Your task to perform on an android device: Do I have any events this weekend? Image 0: 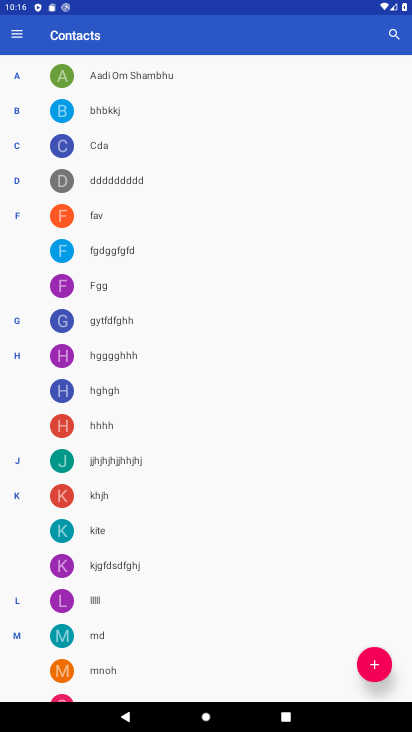
Step 0: press home button
Your task to perform on an android device: Do I have any events this weekend? Image 1: 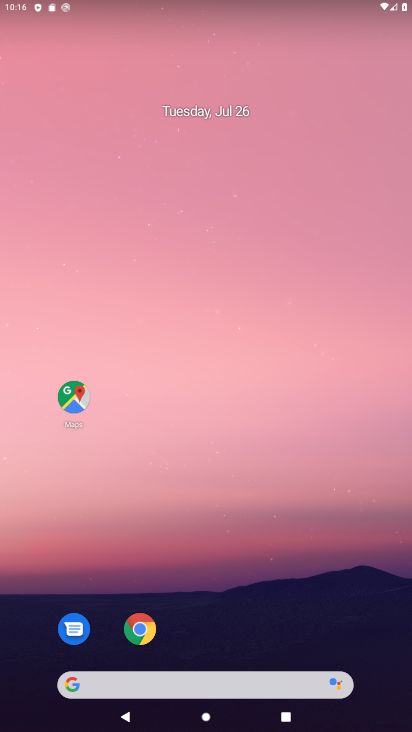
Step 1: drag from (323, 629) to (340, 3)
Your task to perform on an android device: Do I have any events this weekend? Image 2: 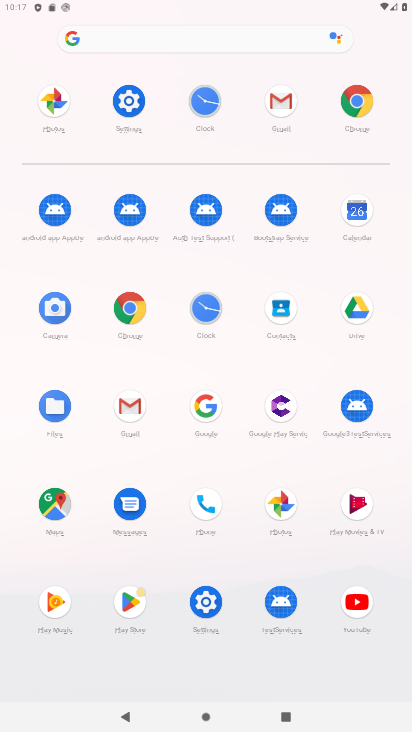
Step 2: click (340, 226)
Your task to perform on an android device: Do I have any events this weekend? Image 3: 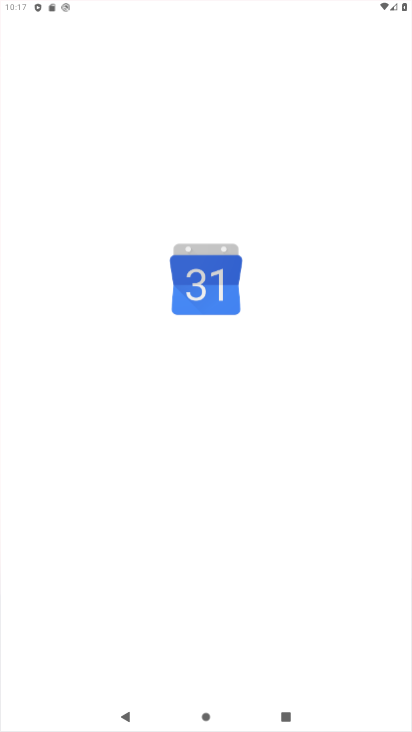
Step 3: task complete